Your task to perform on an android device: Go to sound settings Image 0: 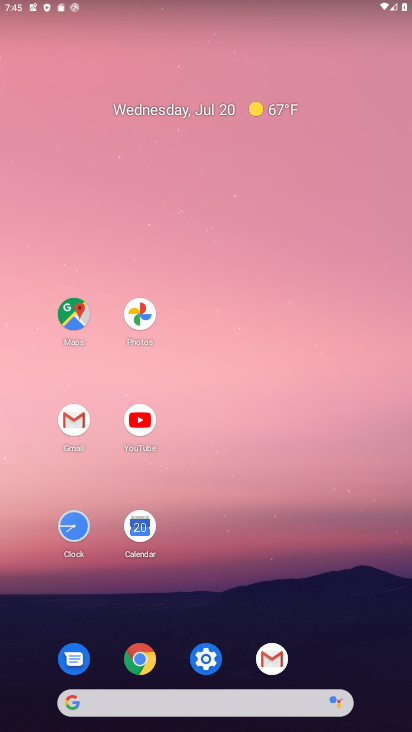
Step 0: click (197, 666)
Your task to perform on an android device: Go to sound settings Image 1: 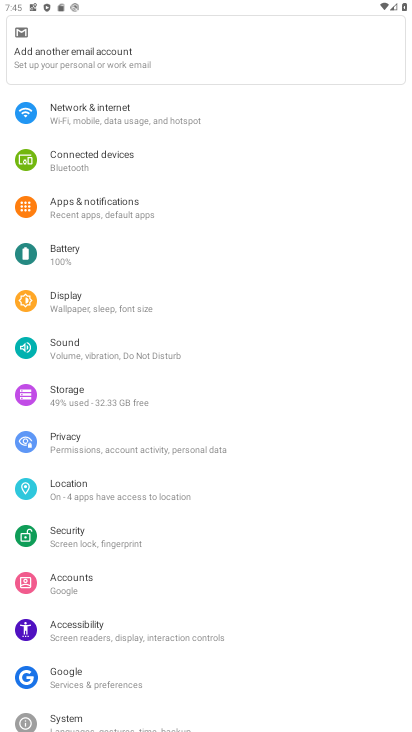
Step 1: click (62, 346)
Your task to perform on an android device: Go to sound settings Image 2: 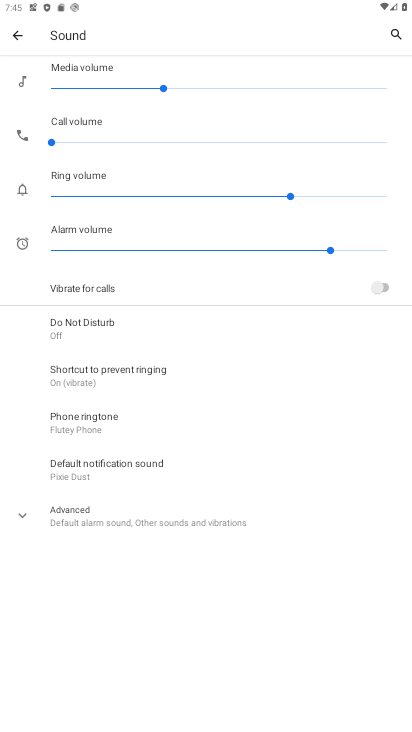
Step 2: task complete